Your task to perform on an android device: Open maps Image 0: 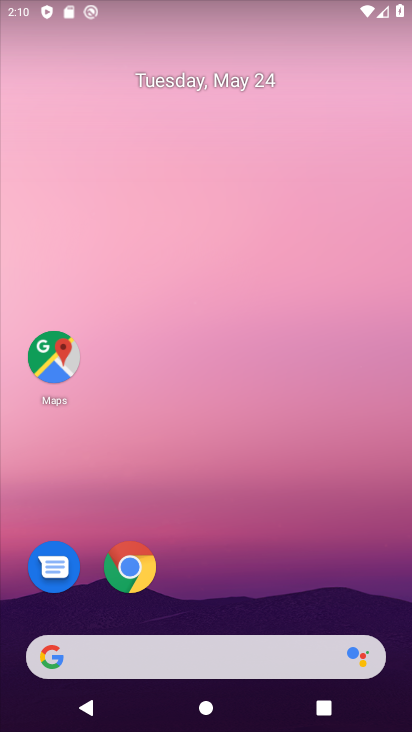
Step 0: click (56, 352)
Your task to perform on an android device: Open maps Image 1: 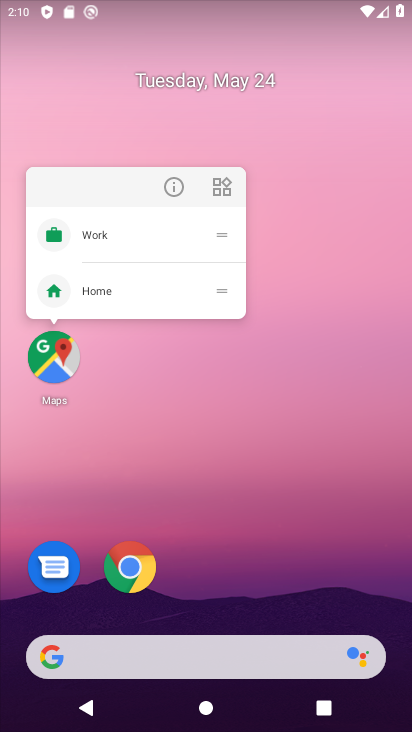
Step 1: click (32, 354)
Your task to perform on an android device: Open maps Image 2: 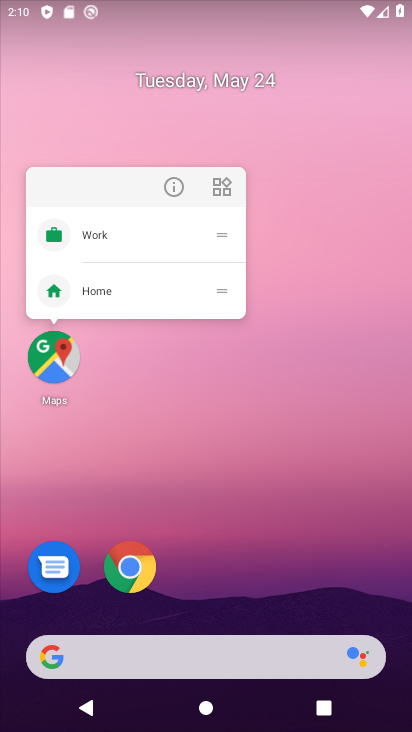
Step 2: click (52, 354)
Your task to perform on an android device: Open maps Image 3: 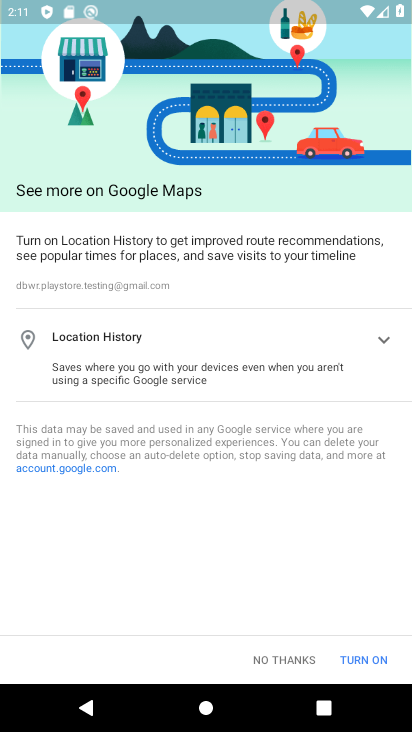
Step 3: task complete